Your task to perform on an android device: Open Yahoo.com Image 0: 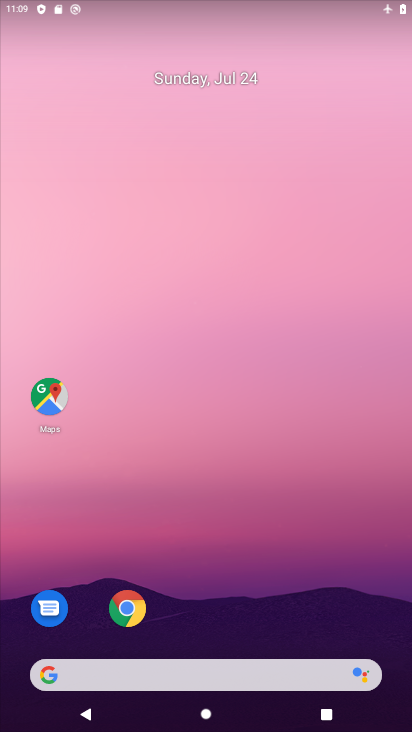
Step 0: click (131, 611)
Your task to perform on an android device: Open Yahoo.com Image 1: 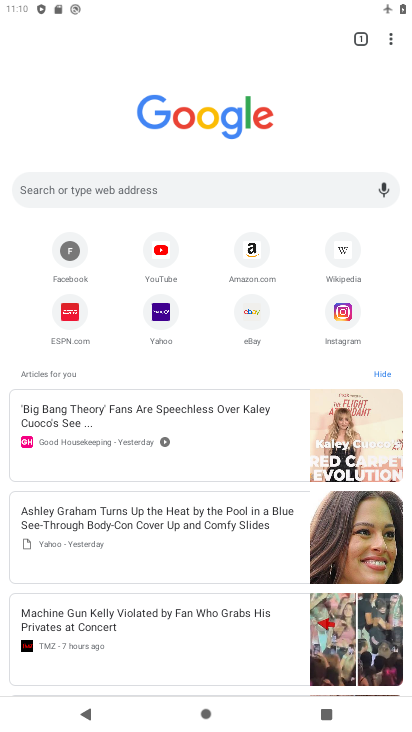
Step 1: click (164, 320)
Your task to perform on an android device: Open Yahoo.com Image 2: 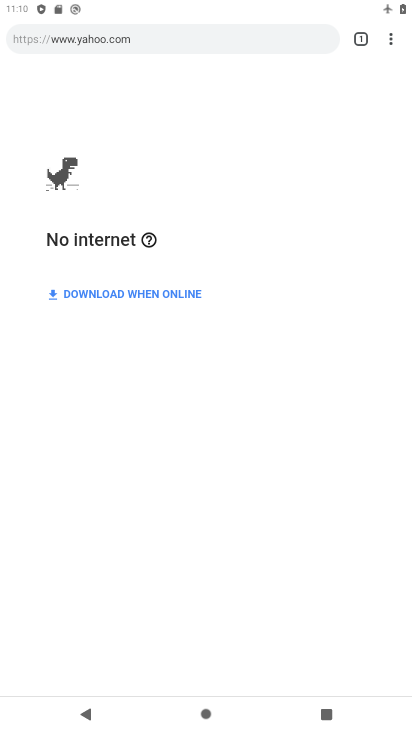
Step 2: task complete